Your task to perform on an android device: open a new tab in the chrome app Image 0: 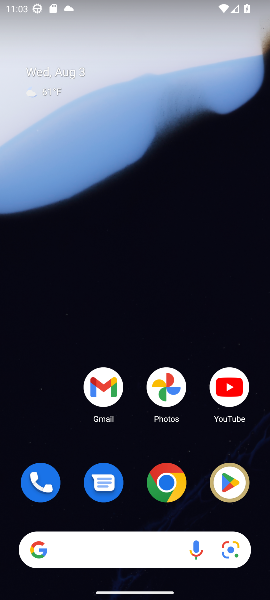
Step 0: click (166, 475)
Your task to perform on an android device: open a new tab in the chrome app Image 1: 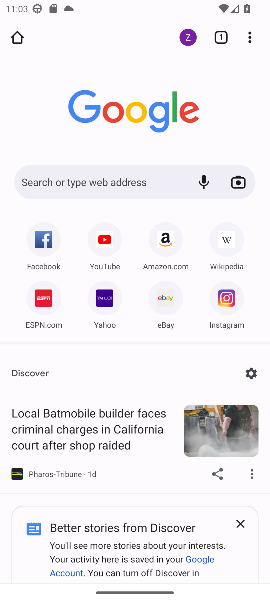
Step 1: click (166, 475)
Your task to perform on an android device: open a new tab in the chrome app Image 2: 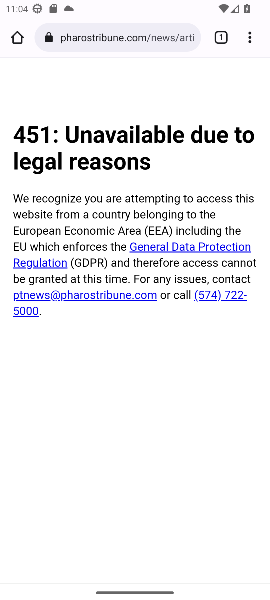
Step 2: click (223, 35)
Your task to perform on an android device: open a new tab in the chrome app Image 3: 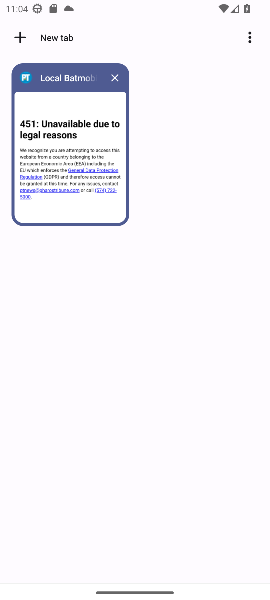
Step 3: click (35, 36)
Your task to perform on an android device: open a new tab in the chrome app Image 4: 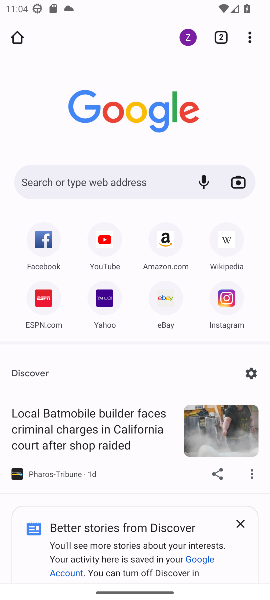
Step 4: task complete